Your task to perform on an android device: turn on the 12-hour format for clock Image 0: 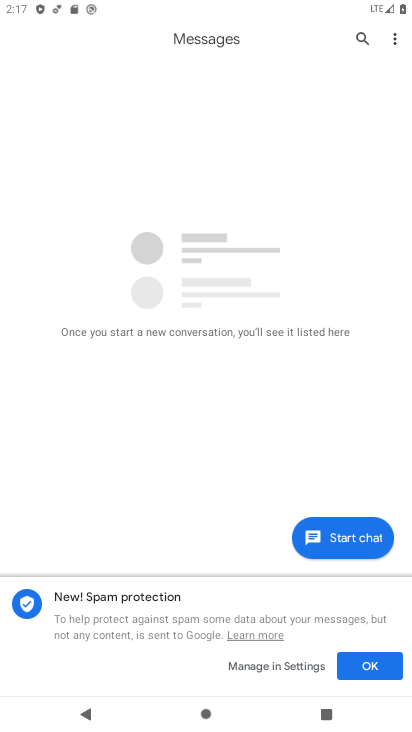
Step 0: press home button
Your task to perform on an android device: turn on the 12-hour format for clock Image 1: 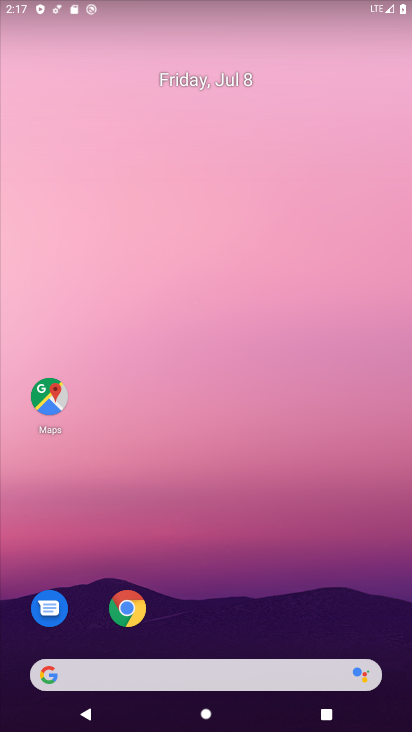
Step 1: drag from (224, 614) to (250, 122)
Your task to perform on an android device: turn on the 12-hour format for clock Image 2: 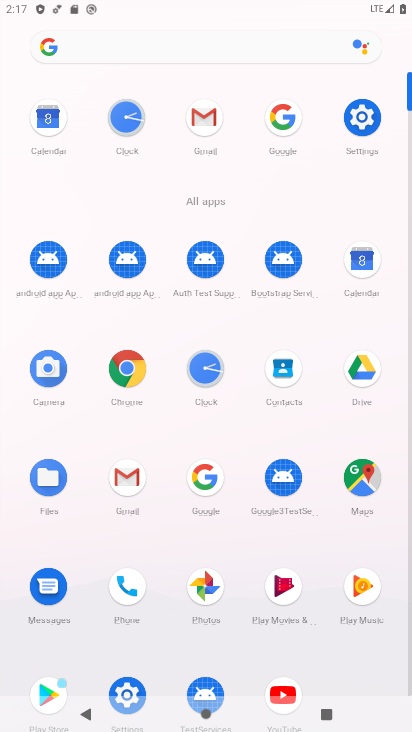
Step 2: click (205, 367)
Your task to perform on an android device: turn on the 12-hour format for clock Image 3: 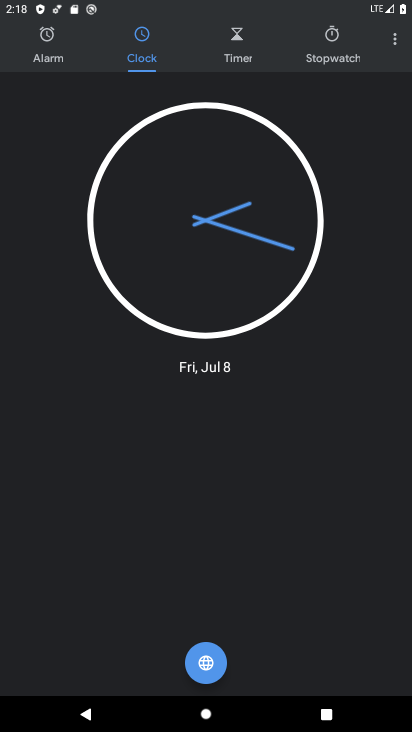
Step 3: click (388, 41)
Your task to perform on an android device: turn on the 12-hour format for clock Image 4: 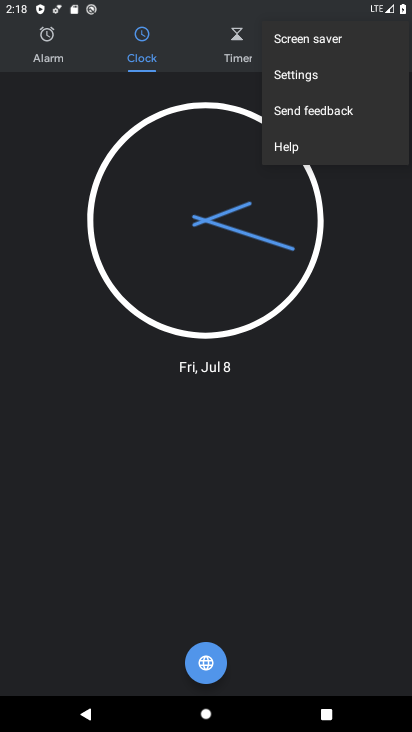
Step 4: click (320, 81)
Your task to perform on an android device: turn on the 12-hour format for clock Image 5: 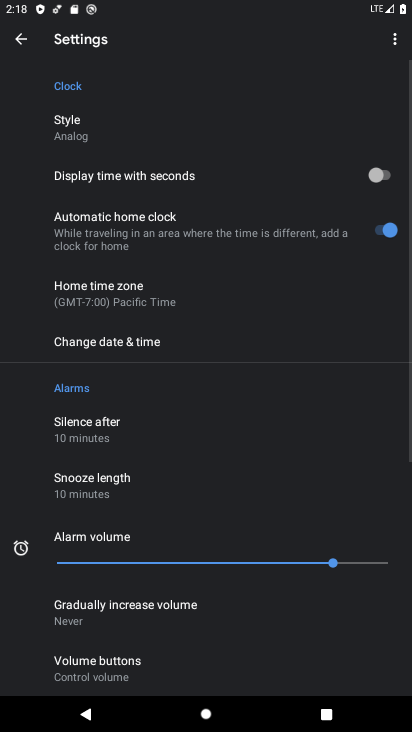
Step 5: click (160, 337)
Your task to perform on an android device: turn on the 12-hour format for clock Image 6: 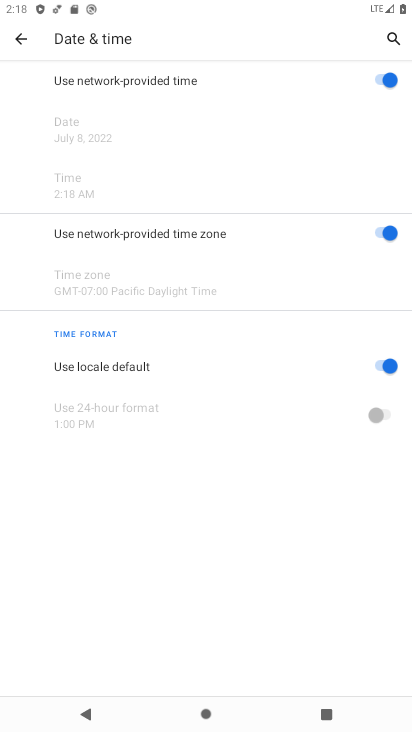
Step 6: task complete